Your task to perform on an android device: empty trash in the gmail app Image 0: 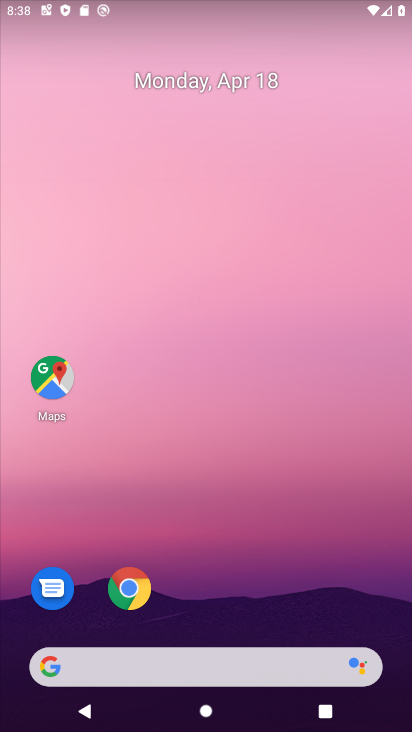
Step 0: drag from (16, 519) to (247, 64)
Your task to perform on an android device: empty trash in the gmail app Image 1: 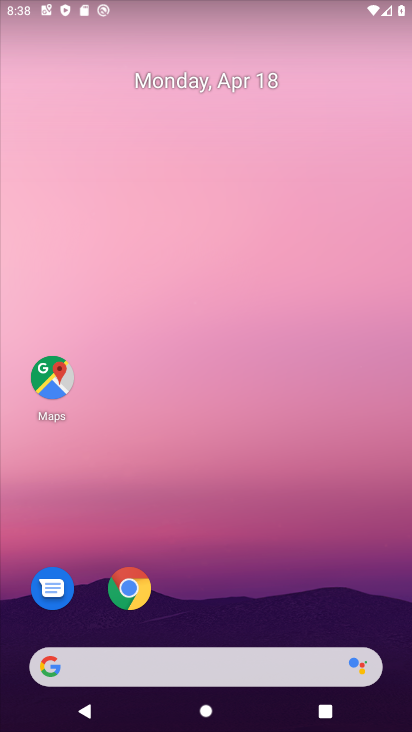
Step 1: drag from (289, 586) to (336, 108)
Your task to perform on an android device: empty trash in the gmail app Image 2: 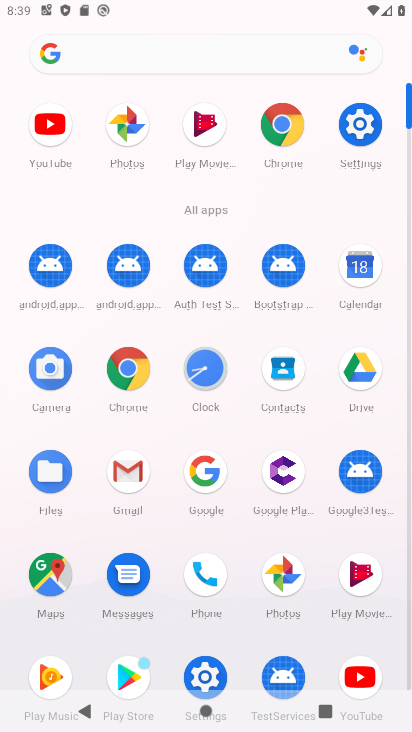
Step 2: click (130, 489)
Your task to perform on an android device: empty trash in the gmail app Image 3: 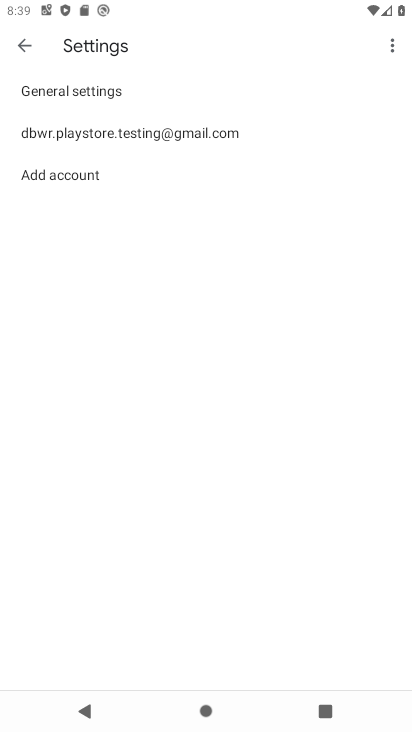
Step 3: press back button
Your task to perform on an android device: empty trash in the gmail app Image 4: 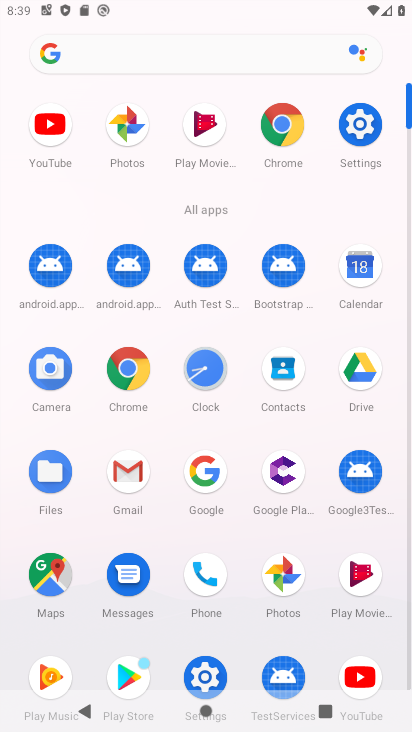
Step 4: click (119, 453)
Your task to perform on an android device: empty trash in the gmail app Image 5: 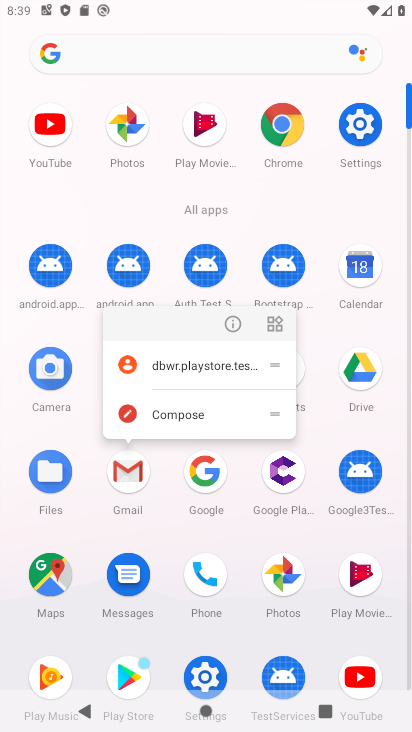
Step 5: click (112, 464)
Your task to perform on an android device: empty trash in the gmail app Image 6: 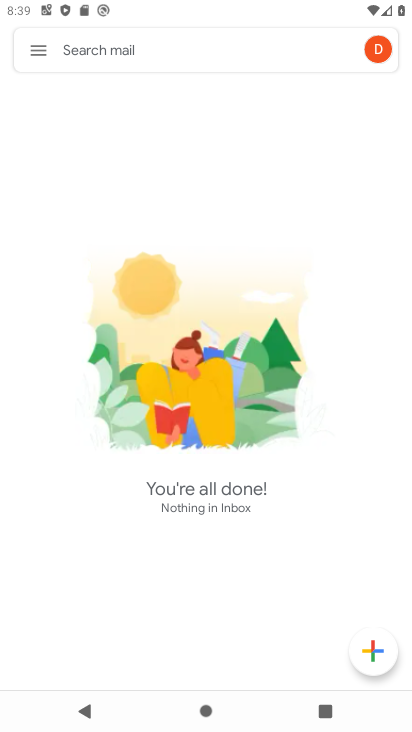
Step 6: click (41, 55)
Your task to perform on an android device: empty trash in the gmail app Image 7: 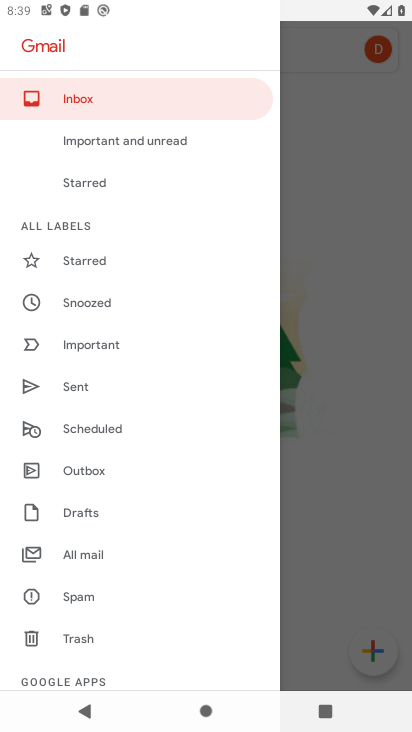
Step 7: click (76, 635)
Your task to perform on an android device: empty trash in the gmail app Image 8: 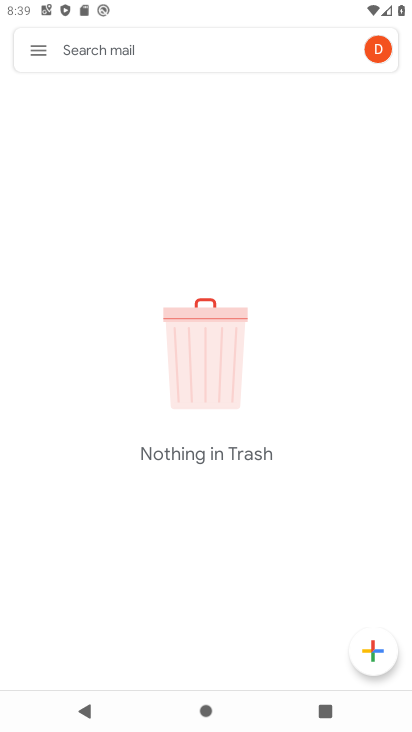
Step 8: task complete